Your task to perform on an android device: turn pop-ups off in chrome Image 0: 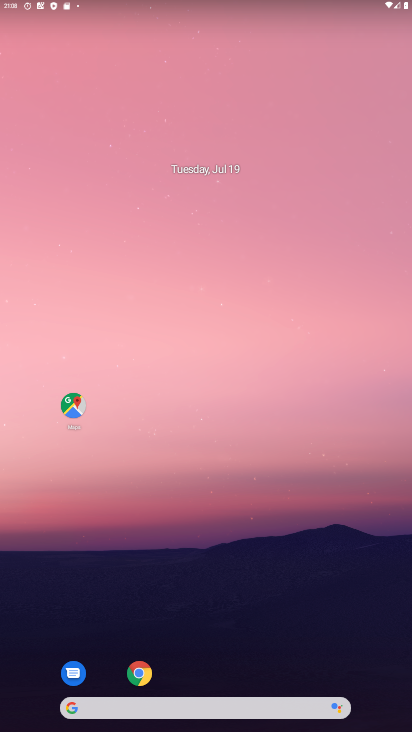
Step 0: click (143, 670)
Your task to perform on an android device: turn pop-ups off in chrome Image 1: 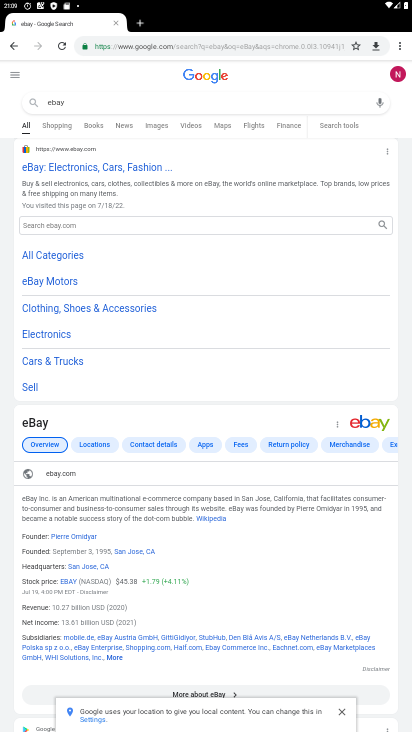
Step 1: click (398, 40)
Your task to perform on an android device: turn pop-ups off in chrome Image 2: 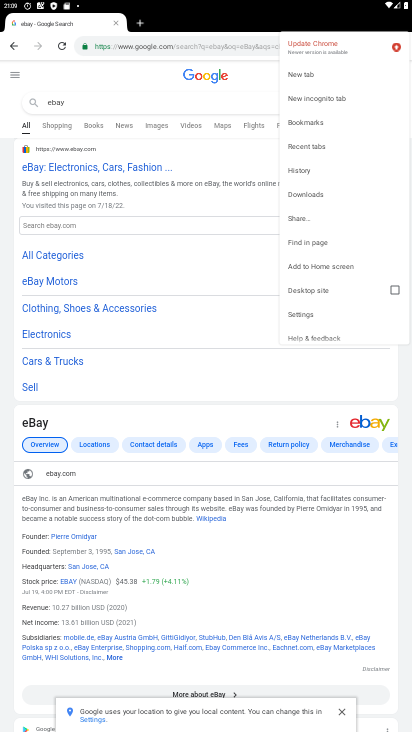
Step 2: click (300, 314)
Your task to perform on an android device: turn pop-ups off in chrome Image 3: 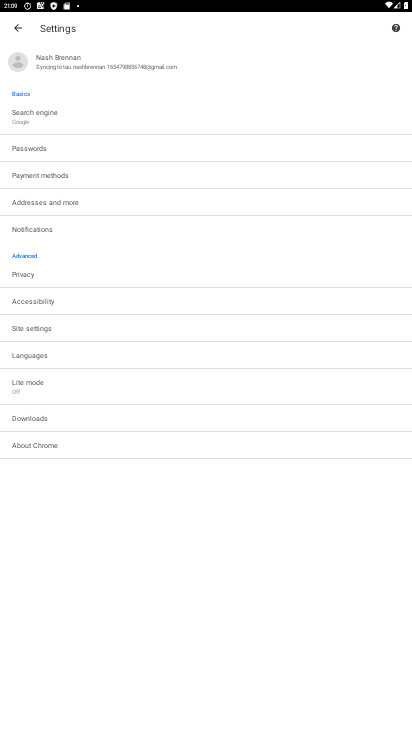
Step 3: click (51, 327)
Your task to perform on an android device: turn pop-ups off in chrome Image 4: 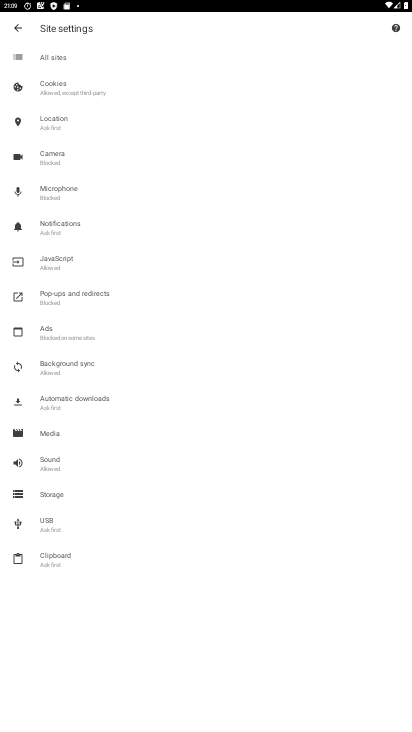
Step 4: click (106, 293)
Your task to perform on an android device: turn pop-ups off in chrome Image 5: 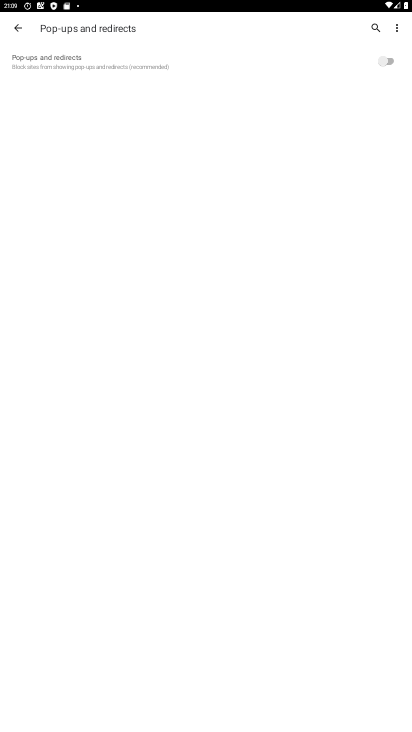
Step 5: task complete